Your task to perform on an android device: turn notification dots off Image 0: 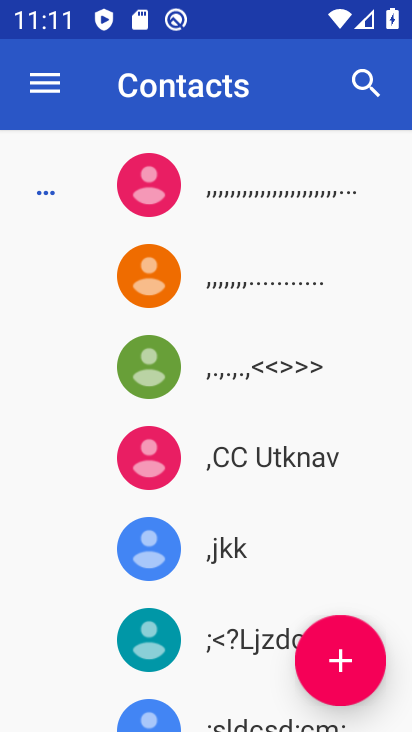
Step 0: press home button
Your task to perform on an android device: turn notification dots off Image 1: 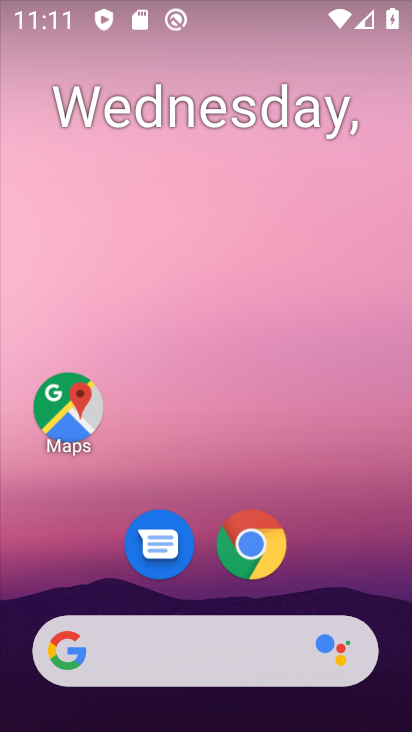
Step 1: drag from (209, 520) to (231, 125)
Your task to perform on an android device: turn notification dots off Image 2: 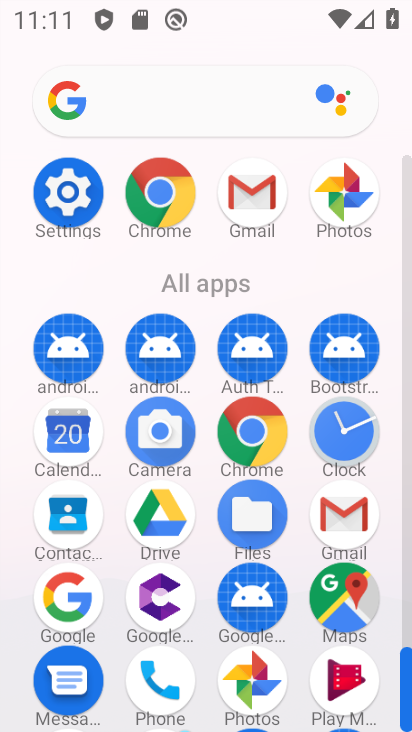
Step 2: click (66, 213)
Your task to perform on an android device: turn notification dots off Image 3: 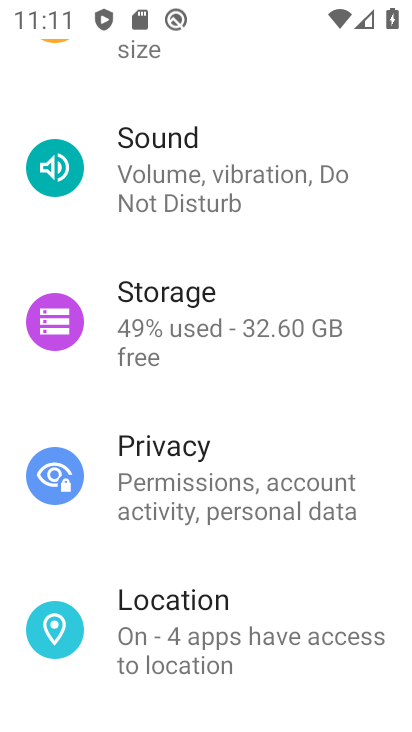
Step 3: drag from (209, 235) to (222, 414)
Your task to perform on an android device: turn notification dots off Image 4: 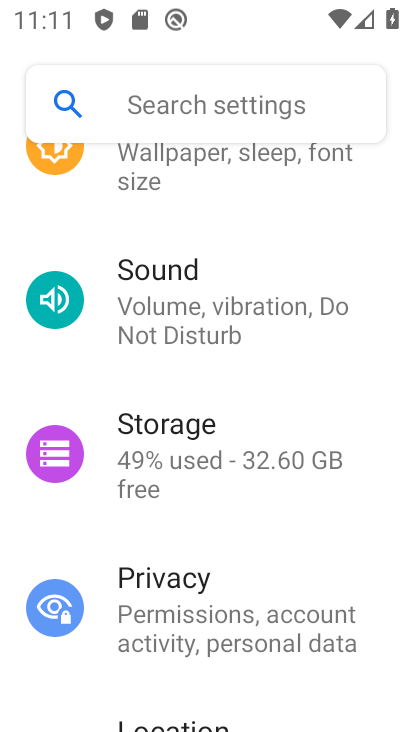
Step 4: drag from (225, 234) to (237, 493)
Your task to perform on an android device: turn notification dots off Image 5: 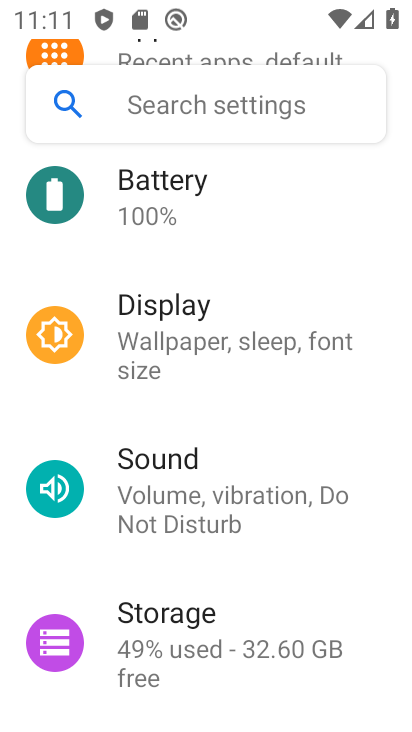
Step 5: drag from (214, 257) to (210, 645)
Your task to perform on an android device: turn notification dots off Image 6: 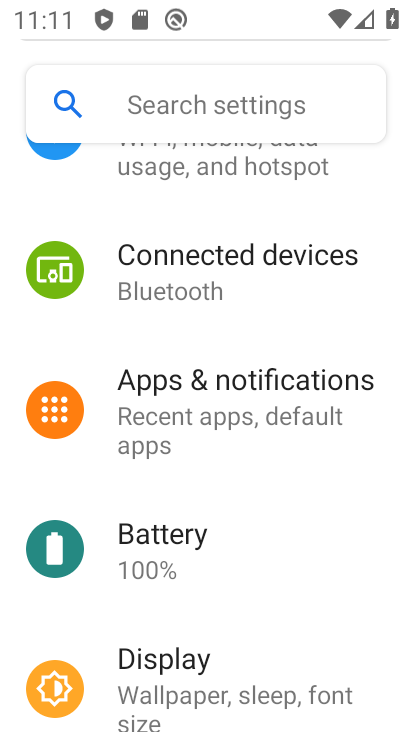
Step 6: click (250, 401)
Your task to perform on an android device: turn notification dots off Image 7: 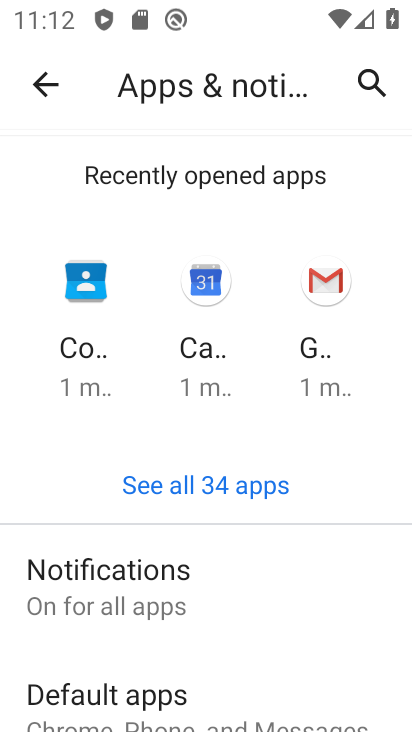
Step 7: click (190, 583)
Your task to perform on an android device: turn notification dots off Image 8: 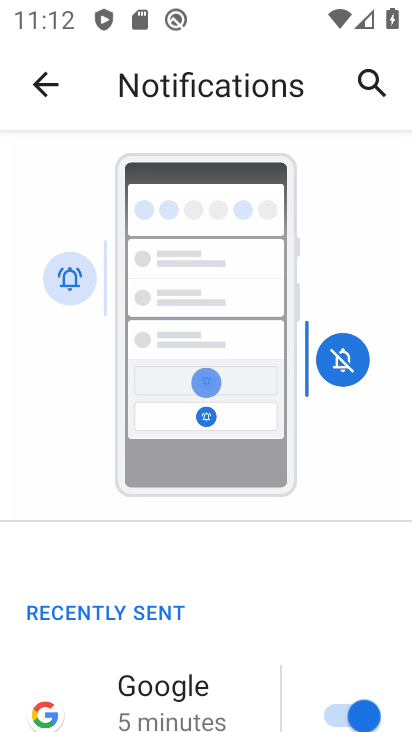
Step 8: drag from (249, 676) to (276, 288)
Your task to perform on an android device: turn notification dots off Image 9: 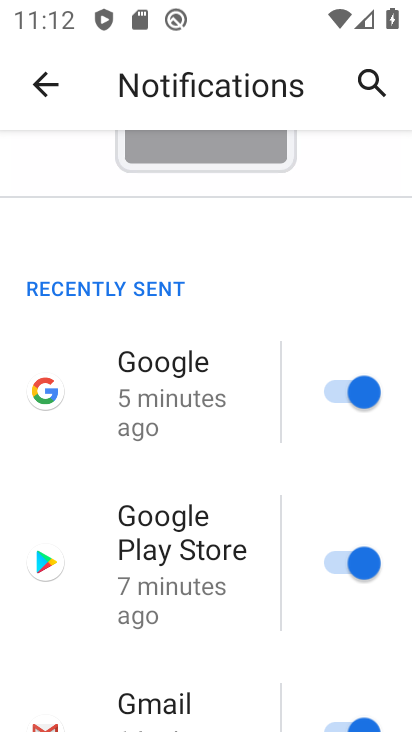
Step 9: drag from (265, 542) to (266, 264)
Your task to perform on an android device: turn notification dots off Image 10: 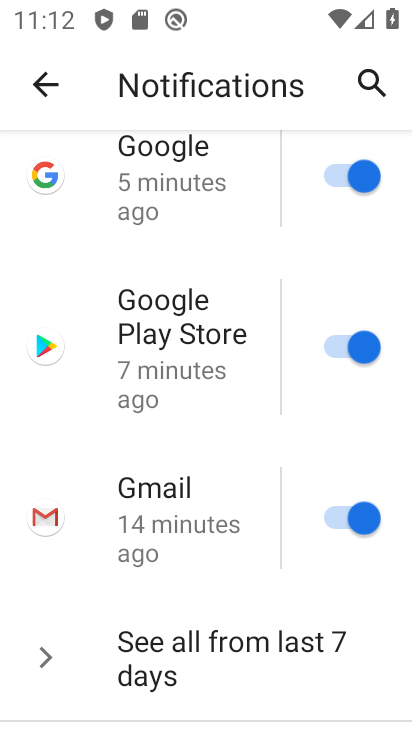
Step 10: drag from (222, 656) to (222, 125)
Your task to perform on an android device: turn notification dots off Image 11: 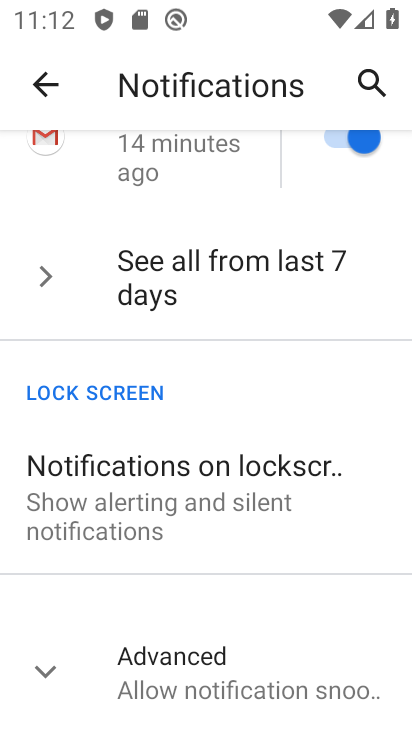
Step 11: drag from (207, 640) to (202, 334)
Your task to perform on an android device: turn notification dots off Image 12: 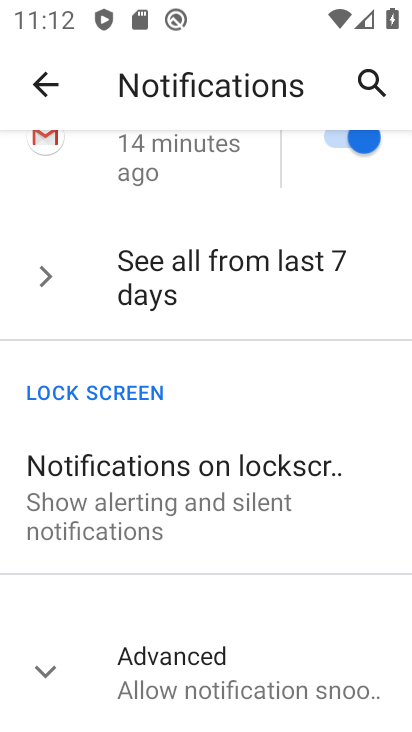
Step 12: click (185, 680)
Your task to perform on an android device: turn notification dots off Image 13: 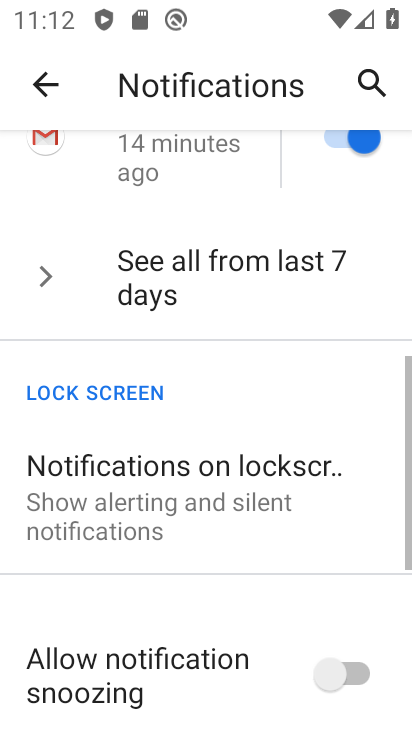
Step 13: drag from (187, 587) to (176, 306)
Your task to perform on an android device: turn notification dots off Image 14: 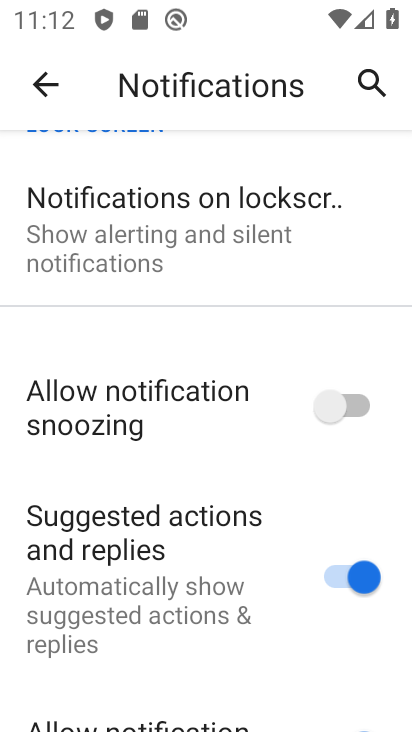
Step 14: drag from (242, 664) to (239, 335)
Your task to perform on an android device: turn notification dots off Image 15: 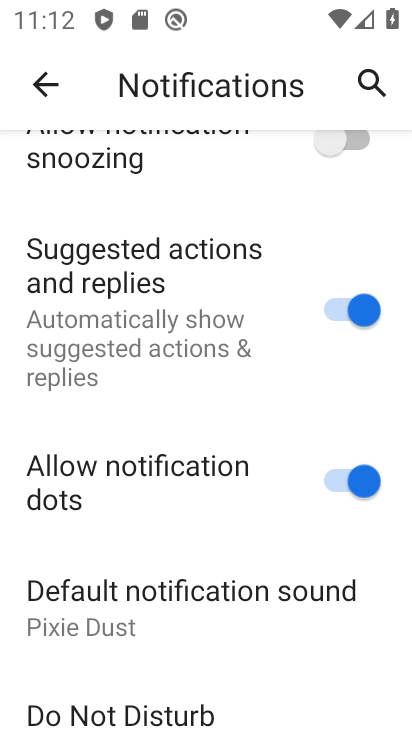
Step 15: click (346, 477)
Your task to perform on an android device: turn notification dots off Image 16: 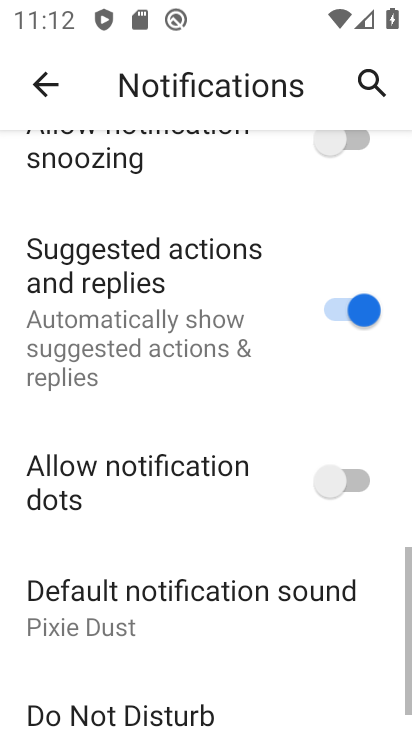
Step 16: task complete